Your task to perform on an android device: turn off location history Image 0: 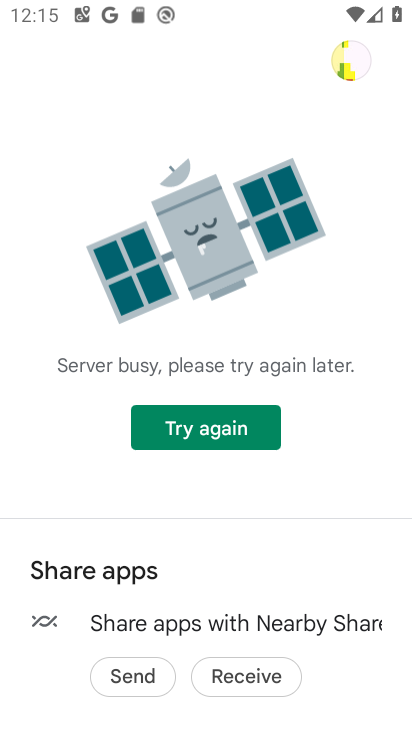
Step 0: press home button
Your task to perform on an android device: turn off location history Image 1: 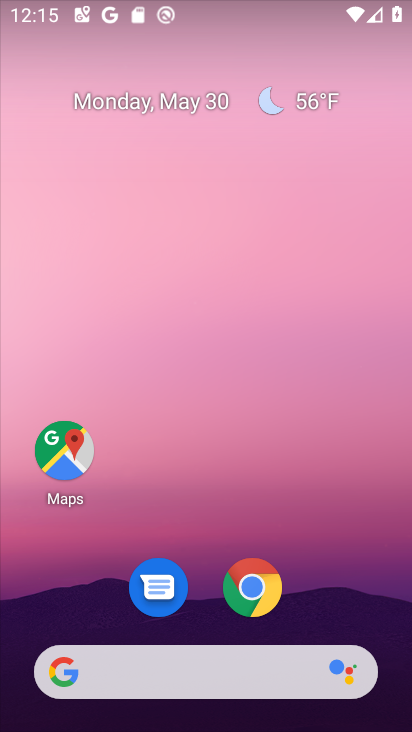
Step 1: drag from (376, 606) to (306, 180)
Your task to perform on an android device: turn off location history Image 2: 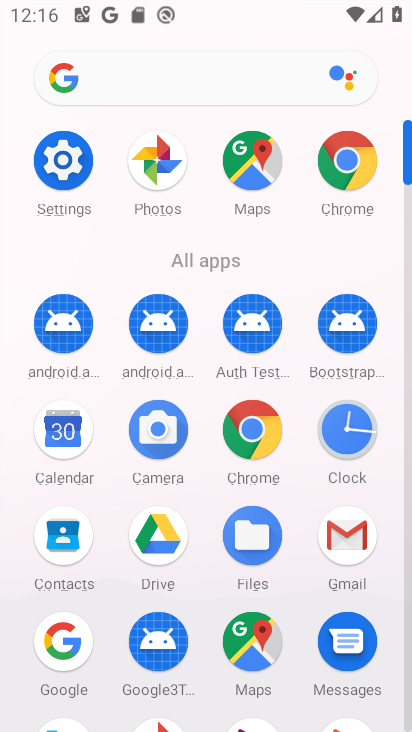
Step 2: click (263, 173)
Your task to perform on an android device: turn off location history Image 3: 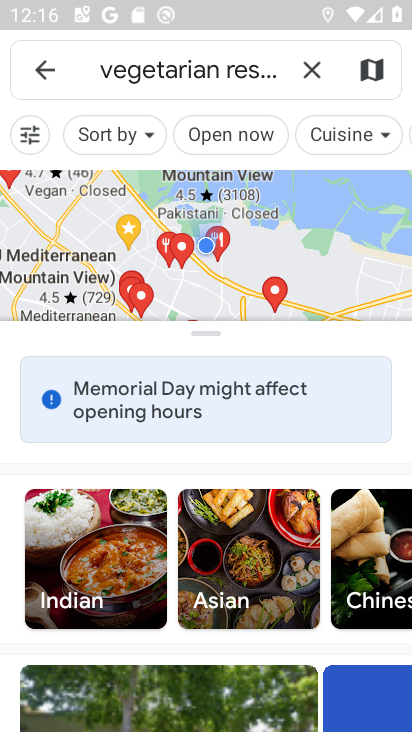
Step 3: click (38, 56)
Your task to perform on an android device: turn off location history Image 4: 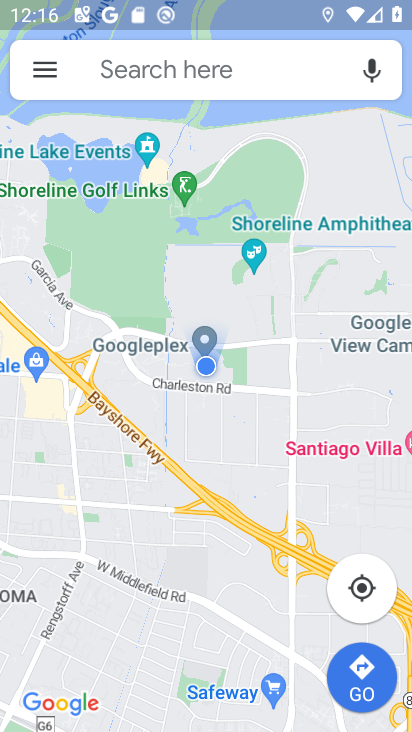
Step 4: click (40, 62)
Your task to perform on an android device: turn off location history Image 5: 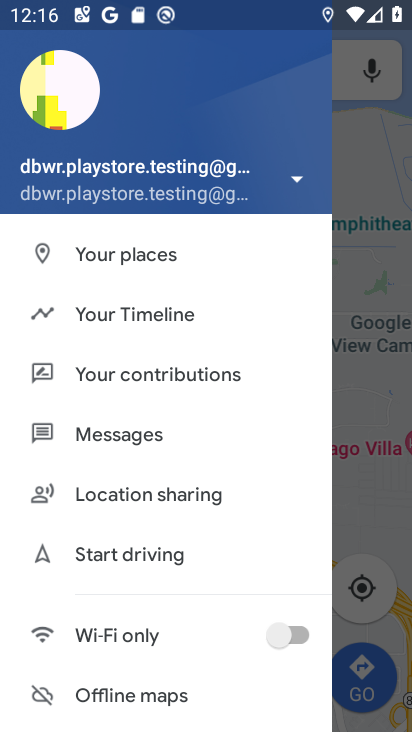
Step 5: click (180, 316)
Your task to perform on an android device: turn off location history Image 6: 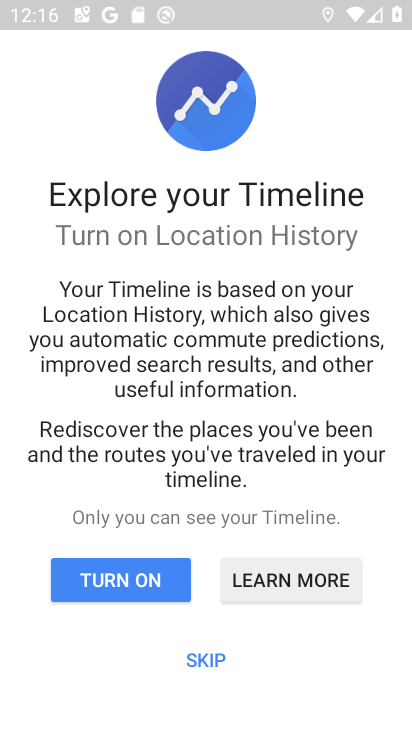
Step 6: click (195, 650)
Your task to perform on an android device: turn off location history Image 7: 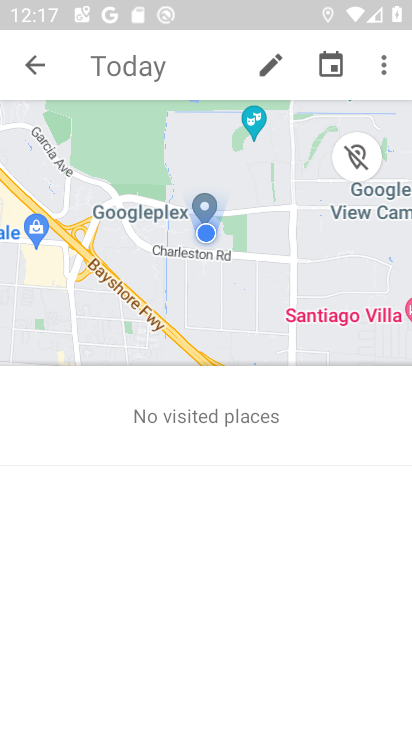
Step 7: click (375, 78)
Your task to perform on an android device: turn off location history Image 8: 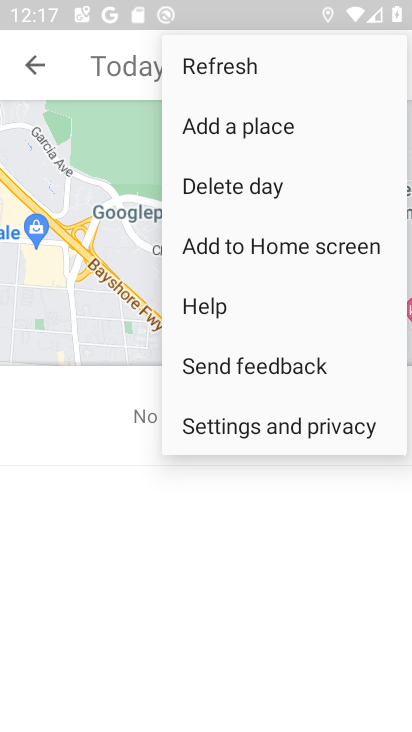
Step 8: click (298, 424)
Your task to perform on an android device: turn off location history Image 9: 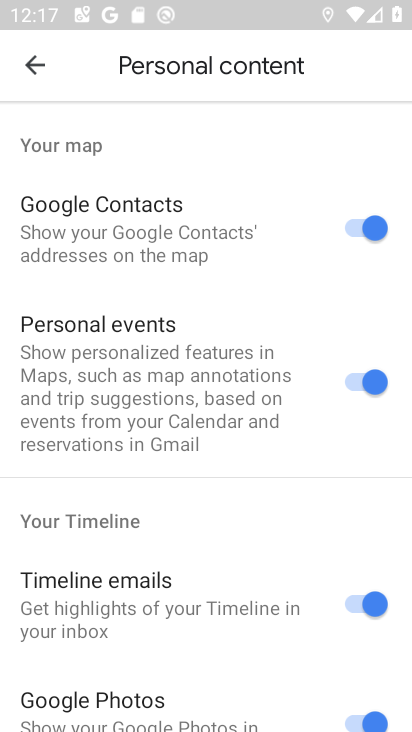
Step 9: drag from (217, 594) to (107, 81)
Your task to perform on an android device: turn off location history Image 10: 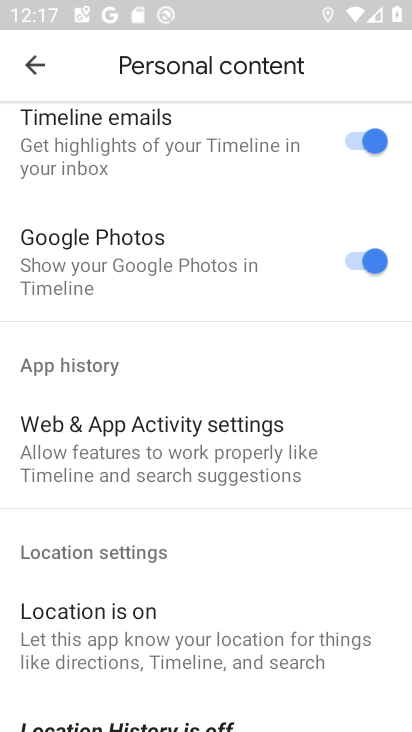
Step 10: drag from (162, 578) to (192, 220)
Your task to perform on an android device: turn off location history Image 11: 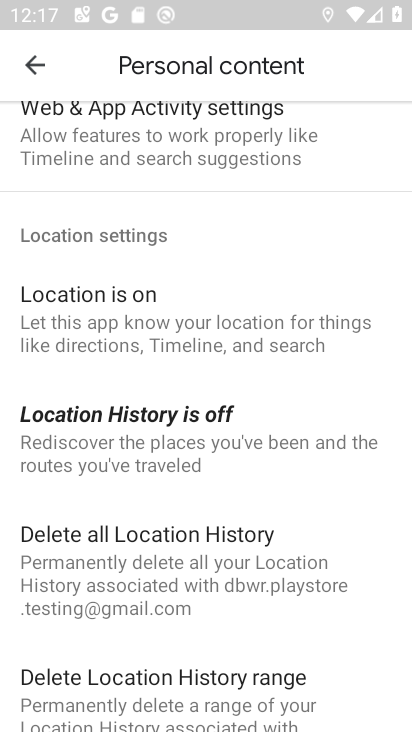
Step 11: click (227, 451)
Your task to perform on an android device: turn off location history Image 12: 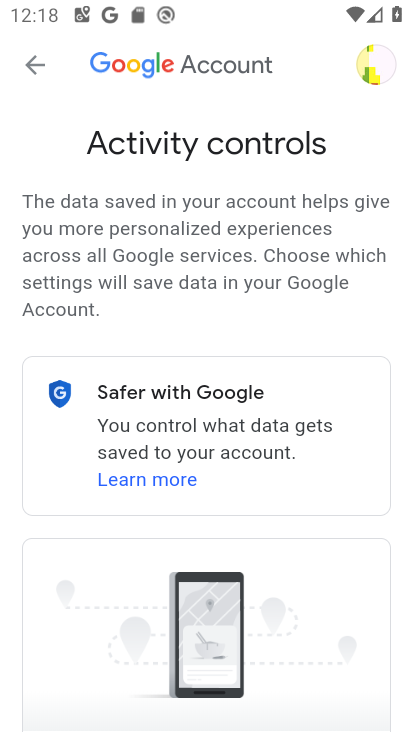
Step 12: task complete